Your task to perform on an android device: change your default location settings in chrome Image 0: 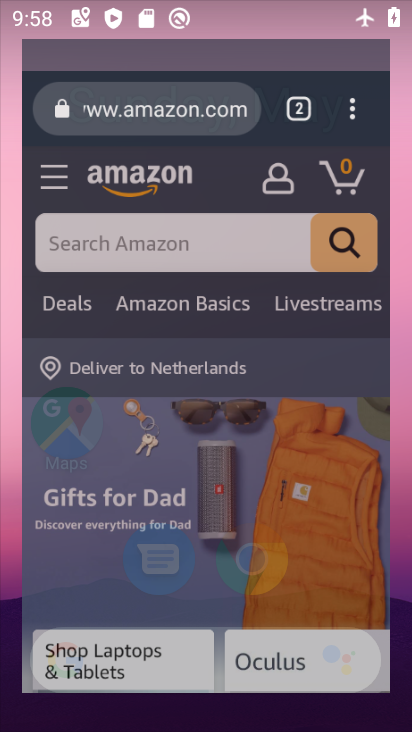
Step 0: press home button
Your task to perform on an android device: change your default location settings in chrome Image 1: 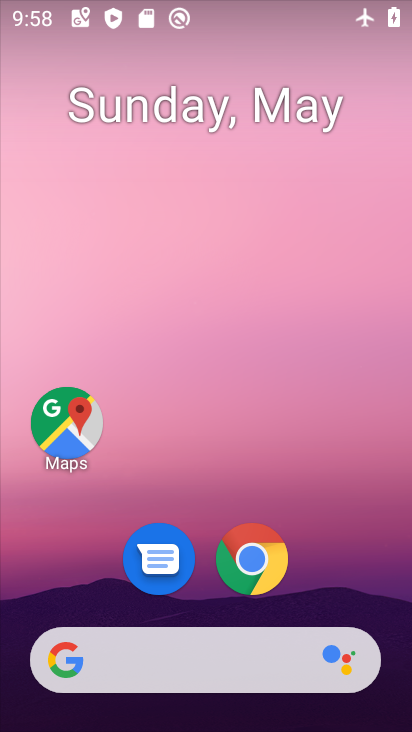
Step 1: click (253, 565)
Your task to perform on an android device: change your default location settings in chrome Image 2: 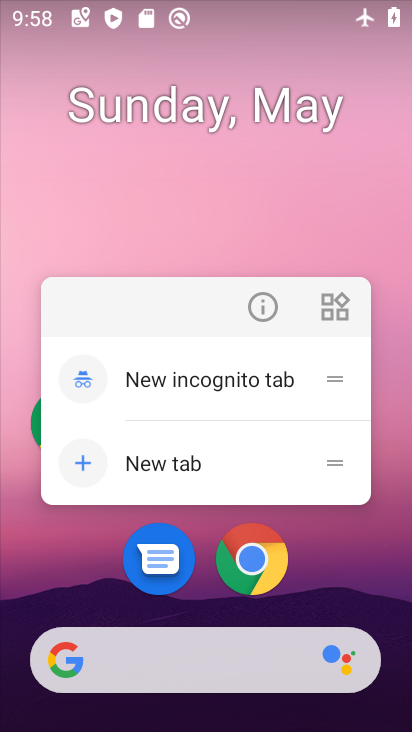
Step 2: click (253, 564)
Your task to perform on an android device: change your default location settings in chrome Image 3: 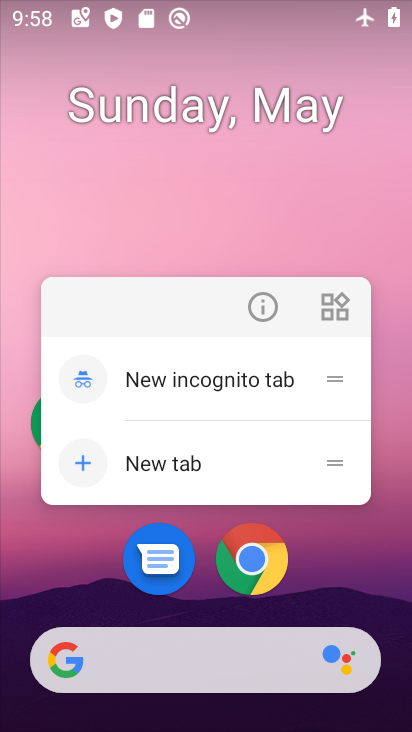
Step 3: drag from (342, 613) to (327, 95)
Your task to perform on an android device: change your default location settings in chrome Image 4: 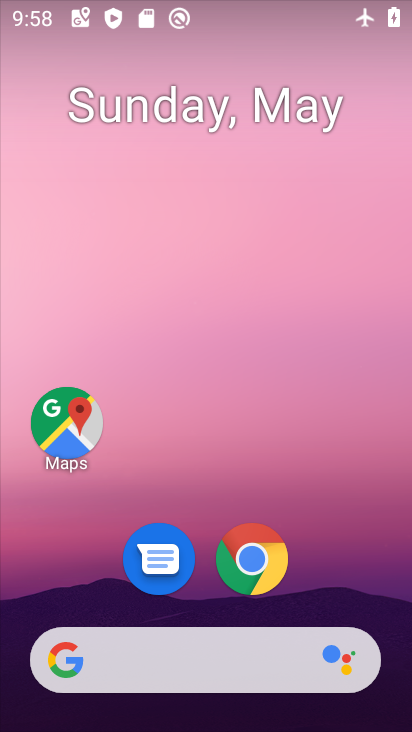
Step 4: drag from (334, 550) to (312, 46)
Your task to perform on an android device: change your default location settings in chrome Image 5: 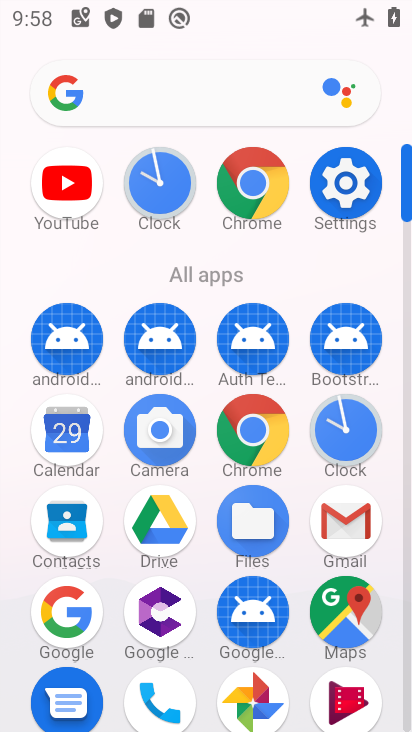
Step 5: click (256, 181)
Your task to perform on an android device: change your default location settings in chrome Image 6: 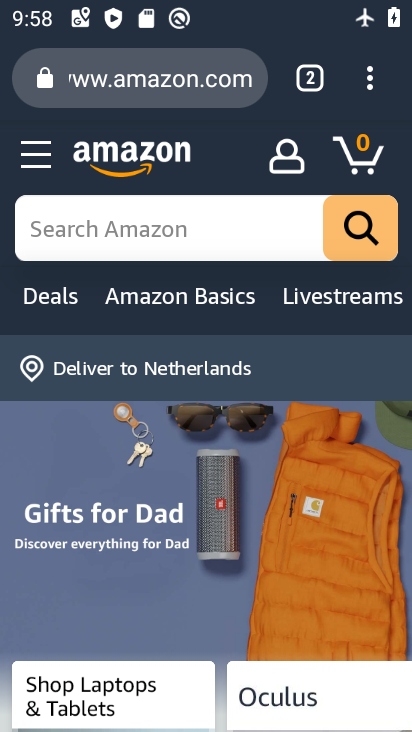
Step 6: drag from (375, 76) to (100, 621)
Your task to perform on an android device: change your default location settings in chrome Image 7: 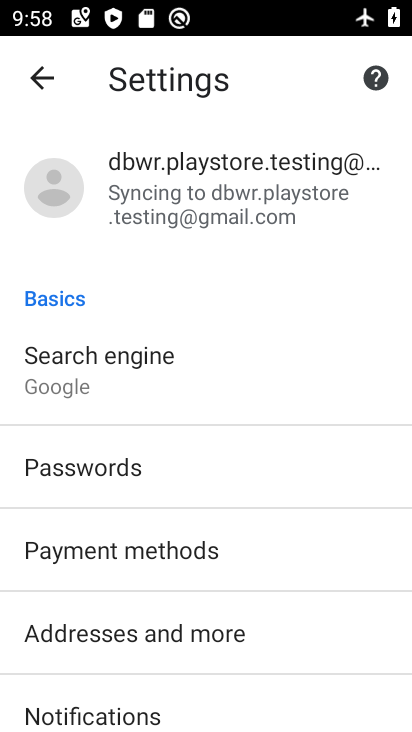
Step 7: drag from (286, 695) to (271, 223)
Your task to perform on an android device: change your default location settings in chrome Image 8: 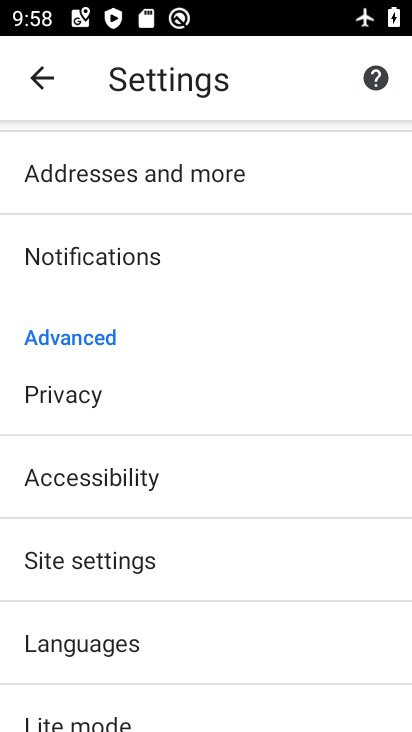
Step 8: click (87, 563)
Your task to perform on an android device: change your default location settings in chrome Image 9: 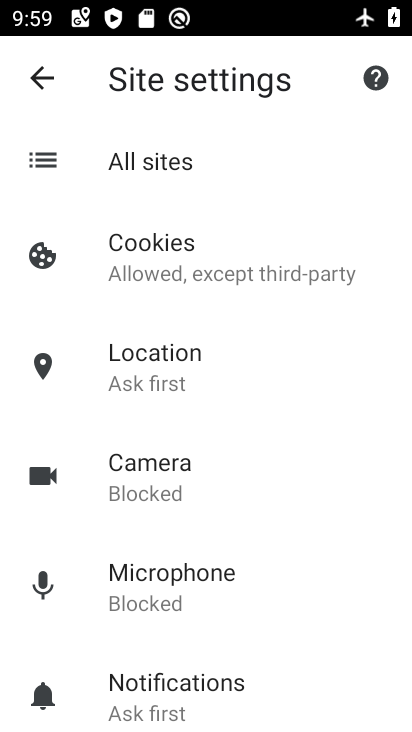
Step 9: click (156, 366)
Your task to perform on an android device: change your default location settings in chrome Image 10: 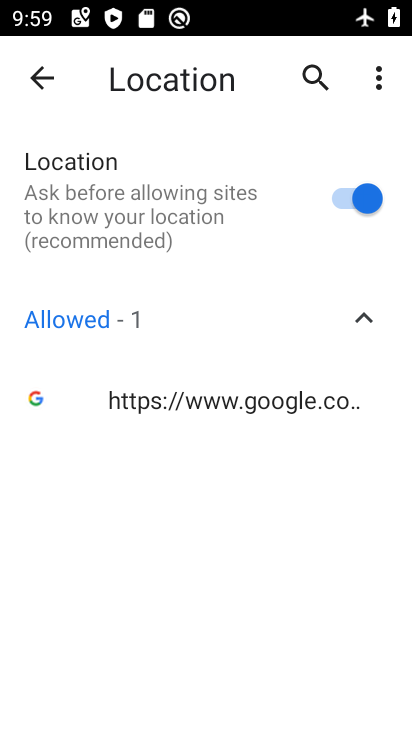
Step 10: click (362, 200)
Your task to perform on an android device: change your default location settings in chrome Image 11: 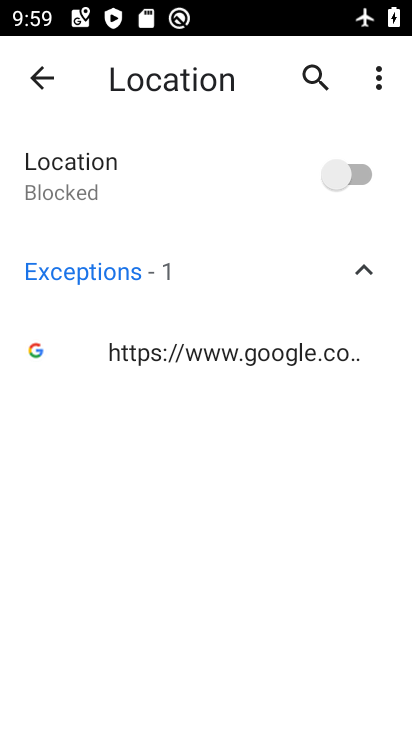
Step 11: task complete